Your task to perform on an android device: turn on javascript in the chrome app Image 0: 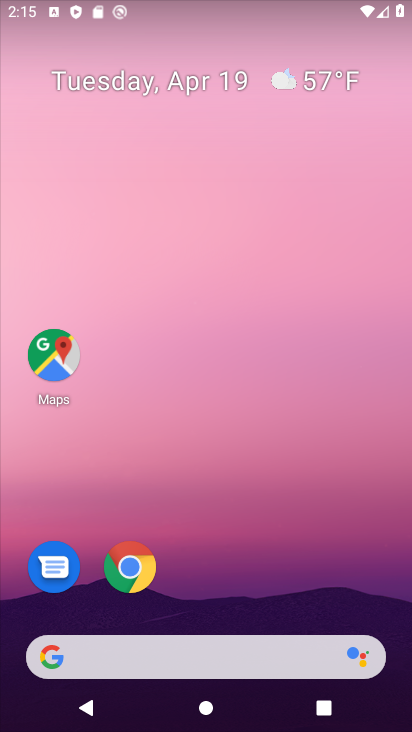
Step 0: click (131, 566)
Your task to perform on an android device: turn on javascript in the chrome app Image 1: 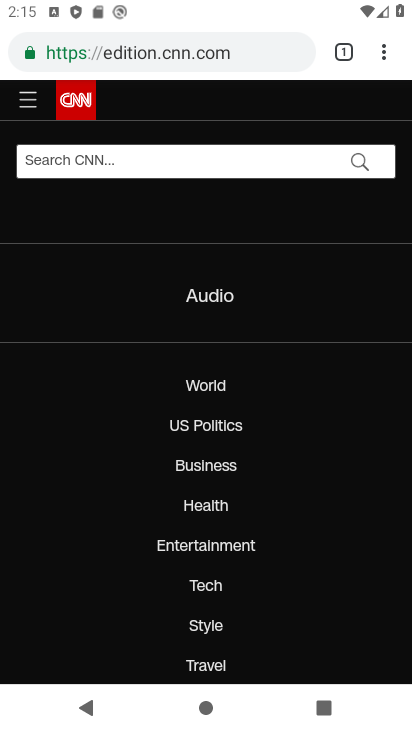
Step 1: click (381, 55)
Your task to perform on an android device: turn on javascript in the chrome app Image 2: 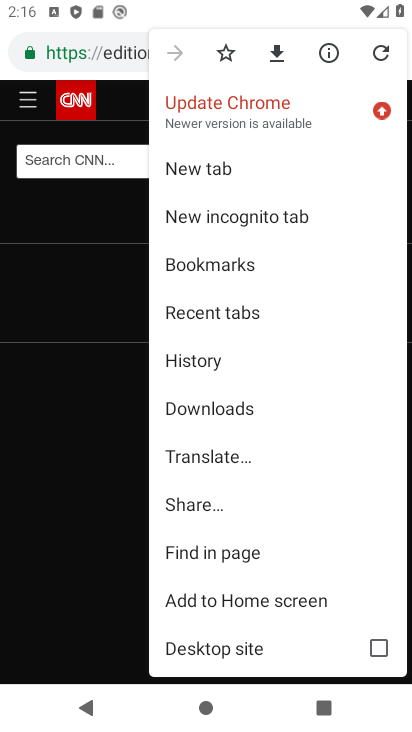
Step 2: drag from (331, 593) to (329, 279)
Your task to perform on an android device: turn on javascript in the chrome app Image 3: 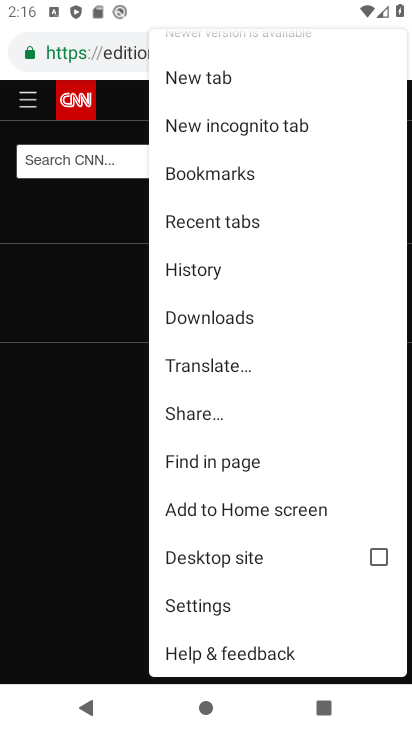
Step 3: click (196, 602)
Your task to perform on an android device: turn on javascript in the chrome app Image 4: 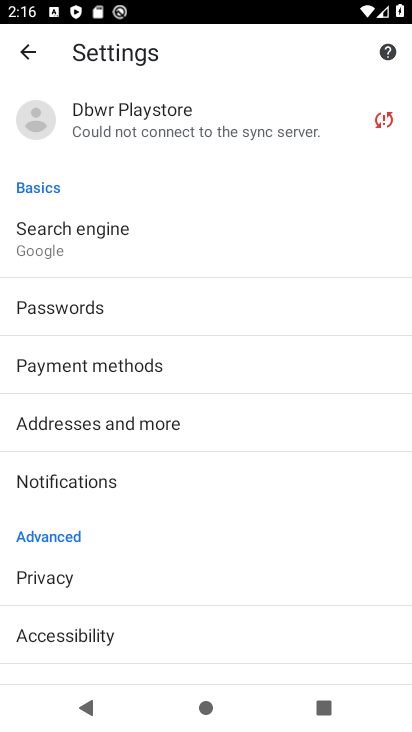
Step 4: drag from (195, 606) to (254, 222)
Your task to perform on an android device: turn on javascript in the chrome app Image 5: 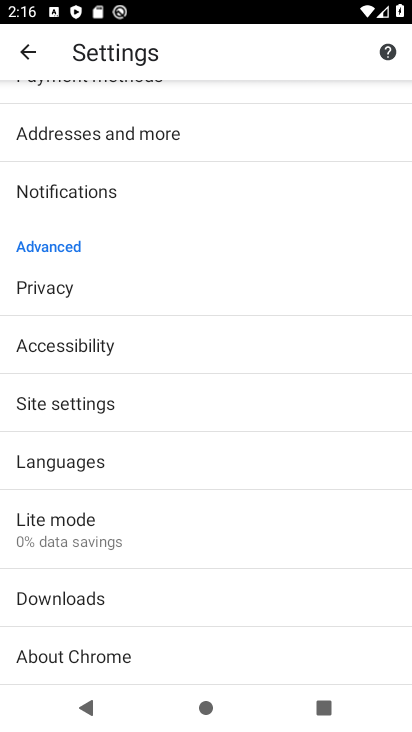
Step 5: click (40, 403)
Your task to perform on an android device: turn on javascript in the chrome app Image 6: 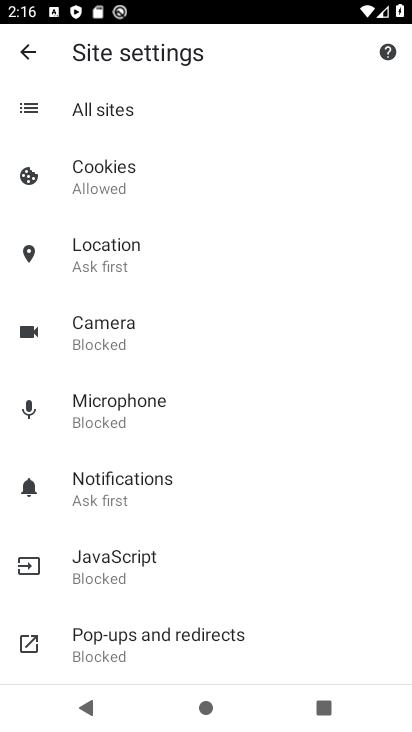
Step 6: click (113, 573)
Your task to perform on an android device: turn on javascript in the chrome app Image 7: 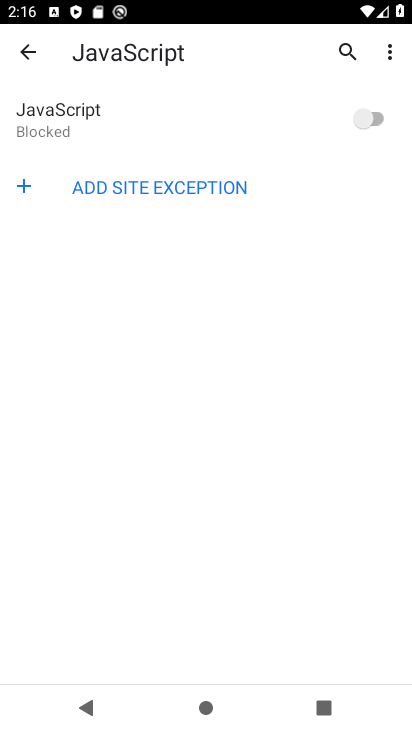
Step 7: click (378, 119)
Your task to perform on an android device: turn on javascript in the chrome app Image 8: 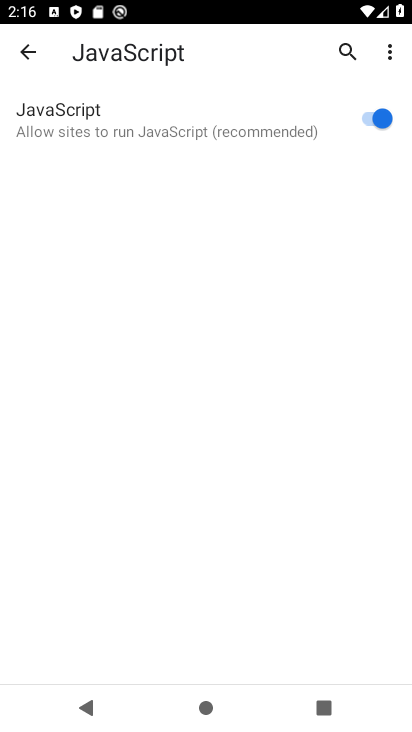
Step 8: task complete